Your task to perform on an android device: turn smart compose on in the gmail app Image 0: 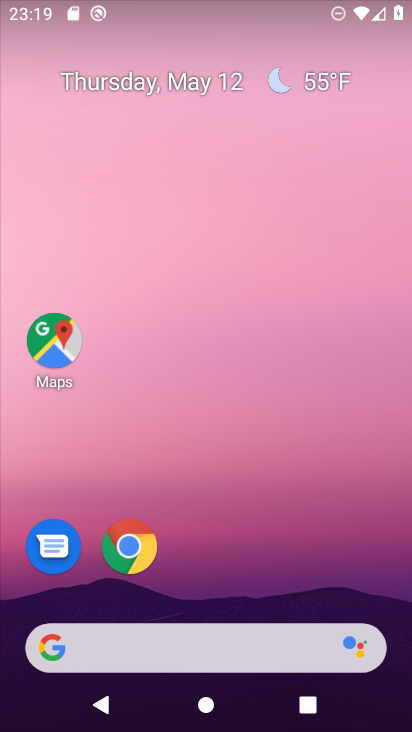
Step 0: drag from (193, 368) to (197, 160)
Your task to perform on an android device: turn smart compose on in the gmail app Image 1: 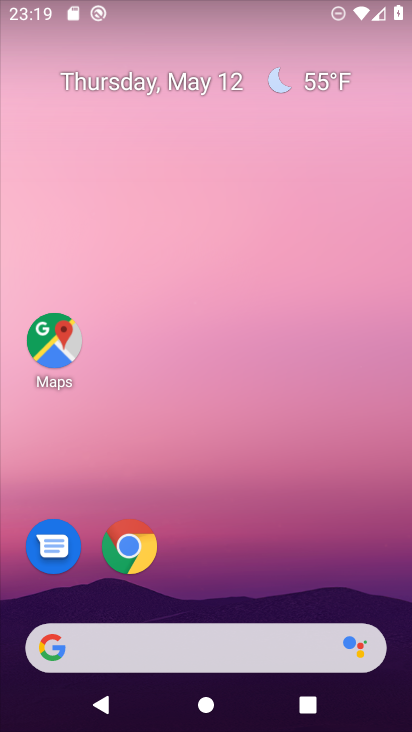
Step 1: drag from (212, 547) to (248, 103)
Your task to perform on an android device: turn smart compose on in the gmail app Image 2: 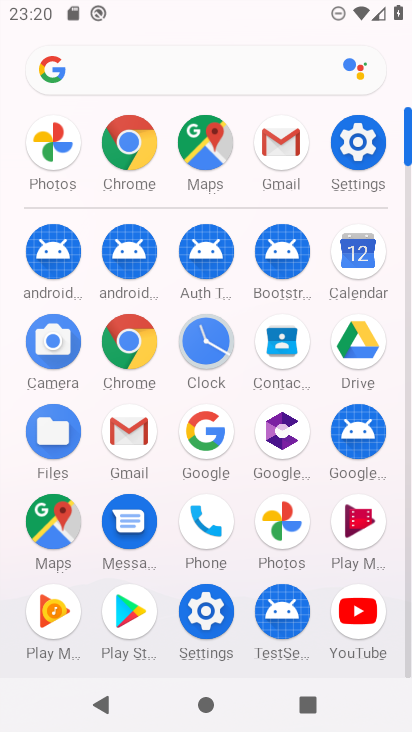
Step 2: click (125, 438)
Your task to perform on an android device: turn smart compose on in the gmail app Image 3: 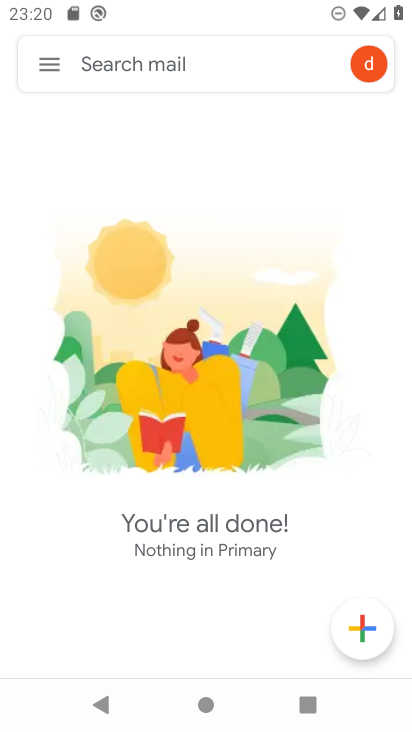
Step 3: click (51, 65)
Your task to perform on an android device: turn smart compose on in the gmail app Image 4: 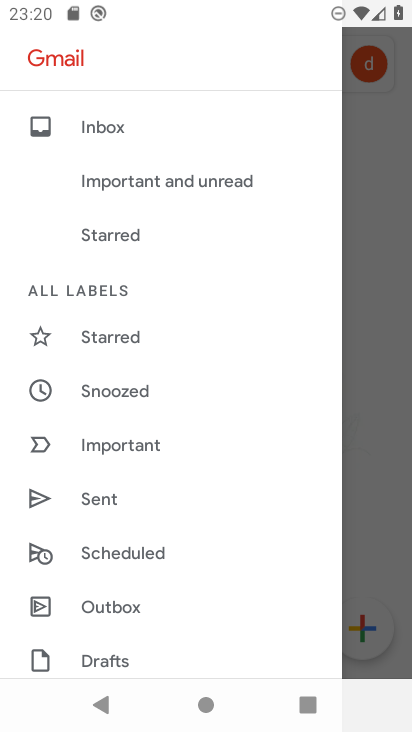
Step 4: drag from (97, 631) to (163, 116)
Your task to perform on an android device: turn smart compose on in the gmail app Image 5: 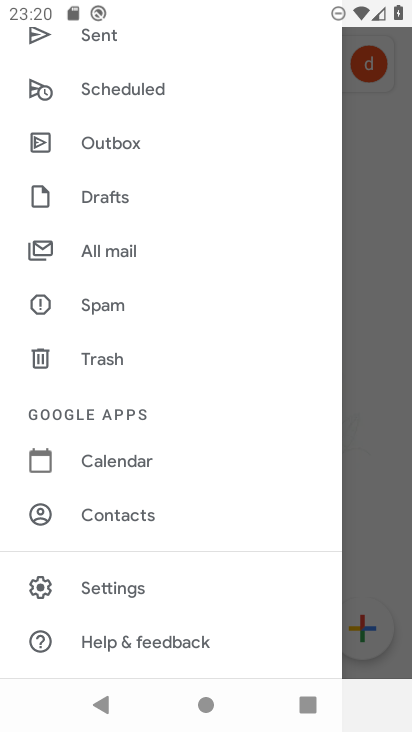
Step 5: drag from (118, 619) to (173, 146)
Your task to perform on an android device: turn smart compose on in the gmail app Image 6: 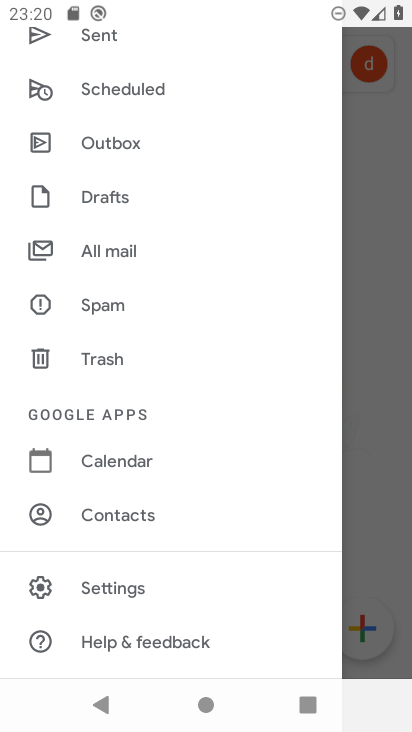
Step 6: drag from (107, 620) to (162, 303)
Your task to perform on an android device: turn smart compose on in the gmail app Image 7: 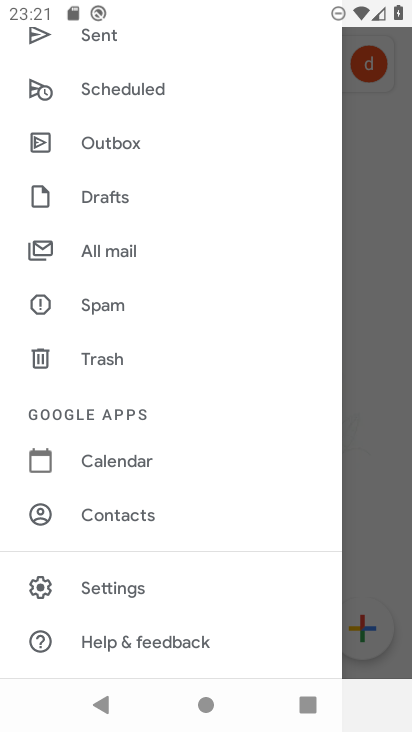
Step 7: click (117, 586)
Your task to perform on an android device: turn smart compose on in the gmail app Image 8: 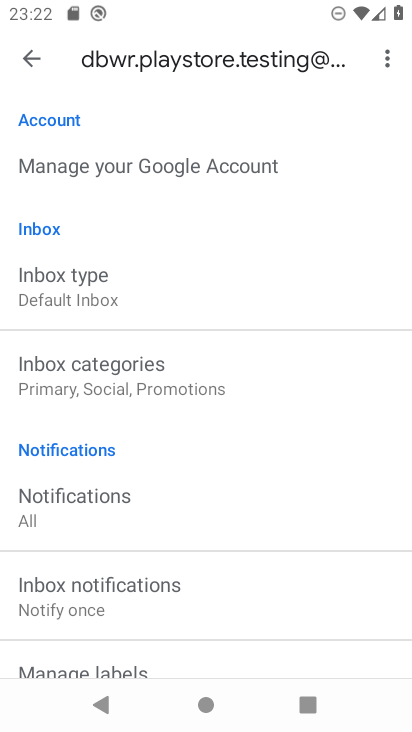
Step 8: task complete